Your task to perform on an android device: turn on airplane mode Image 0: 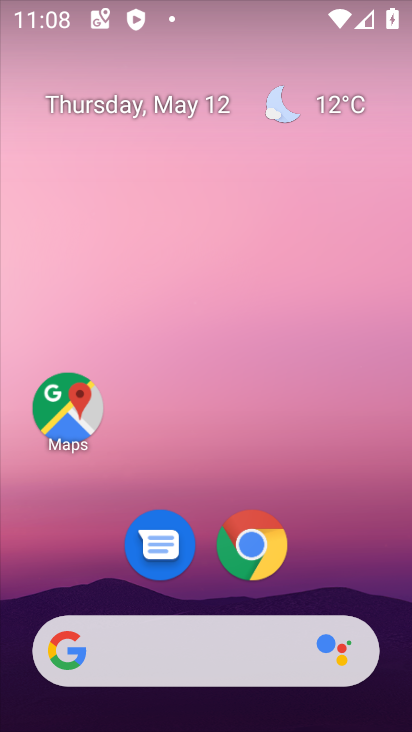
Step 0: drag from (177, 6) to (218, 577)
Your task to perform on an android device: turn on airplane mode Image 1: 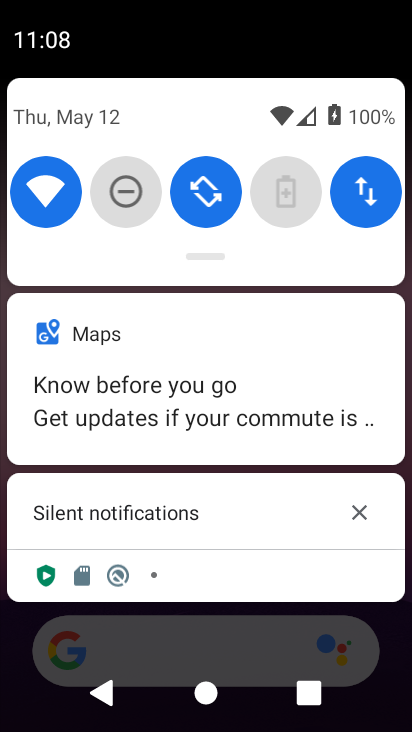
Step 1: drag from (240, 255) to (234, 715)
Your task to perform on an android device: turn on airplane mode Image 2: 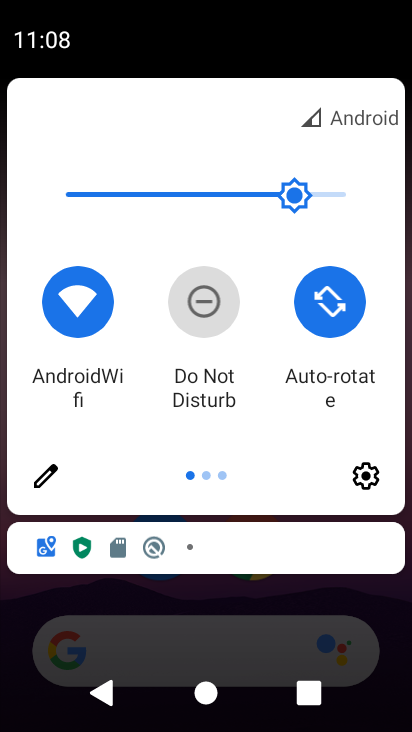
Step 2: drag from (354, 342) to (19, 354)
Your task to perform on an android device: turn on airplane mode Image 3: 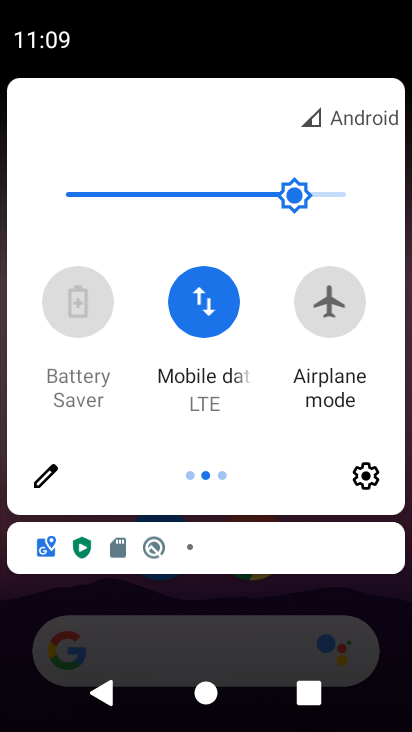
Step 3: click (327, 303)
Your task to perform on an android device: turn on airplane mode Image 4: 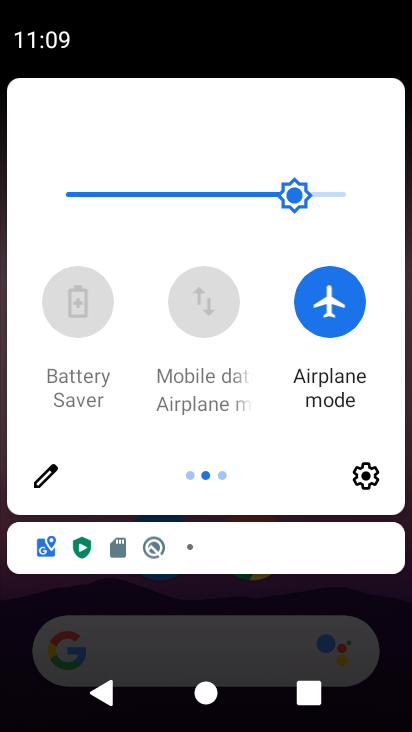
Step 4: task complete